Your task to perform on an android device: Go to ESPN.com Image 0: 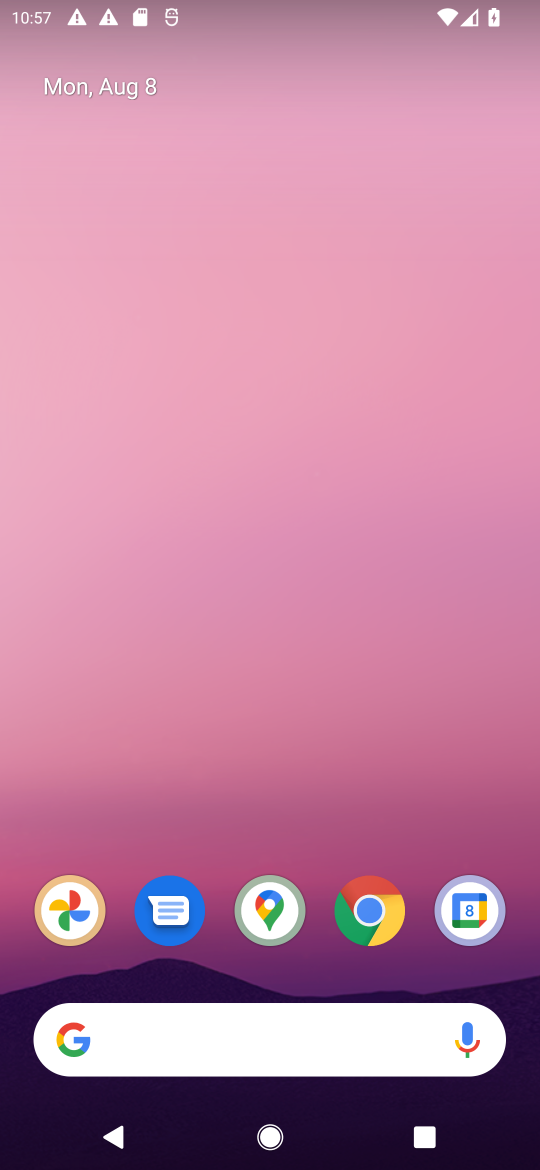
Step 0: click (369, 936)
Your task to perform on an android device: Go to ESPN.com Image 1: 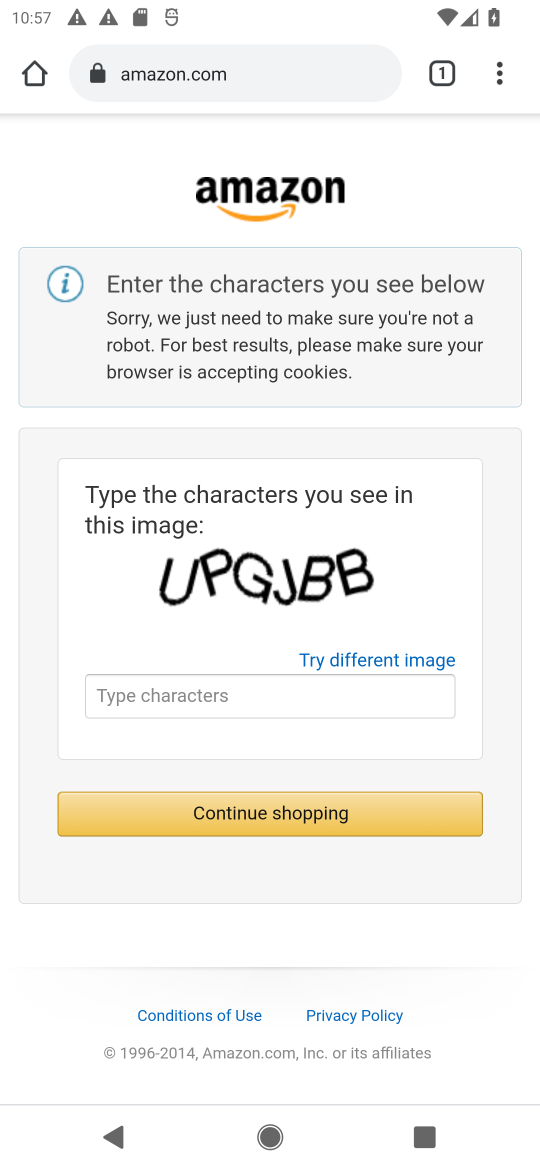
Step 1: click (439, 99)
Your task to perform on an android device: Go to ESPN.com Image 2: 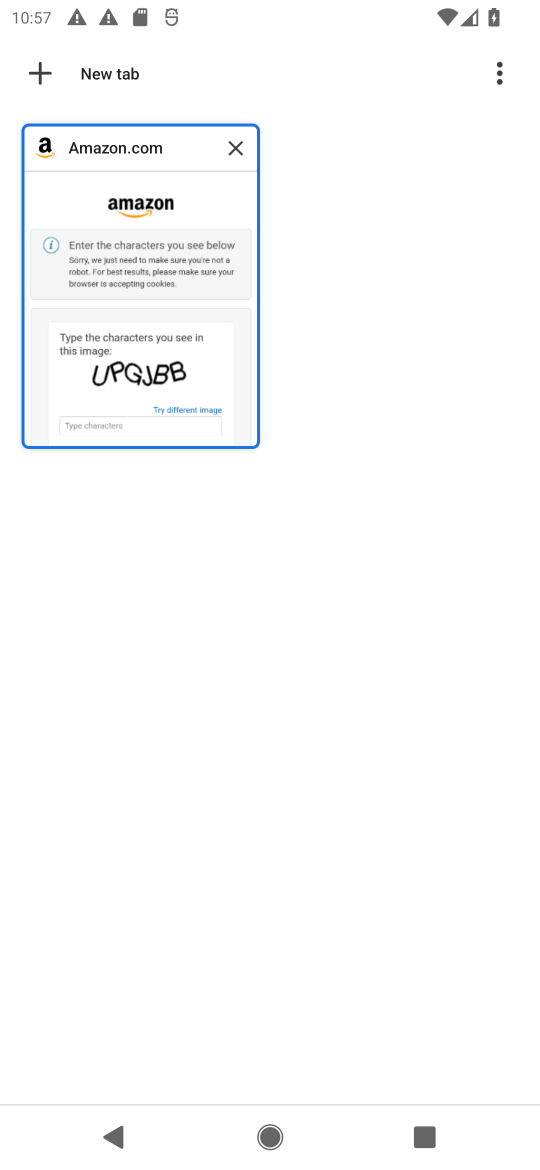
Step 2: click (31, 63)
Your task to perform on an android device: Go to ESPN.com Image 3: 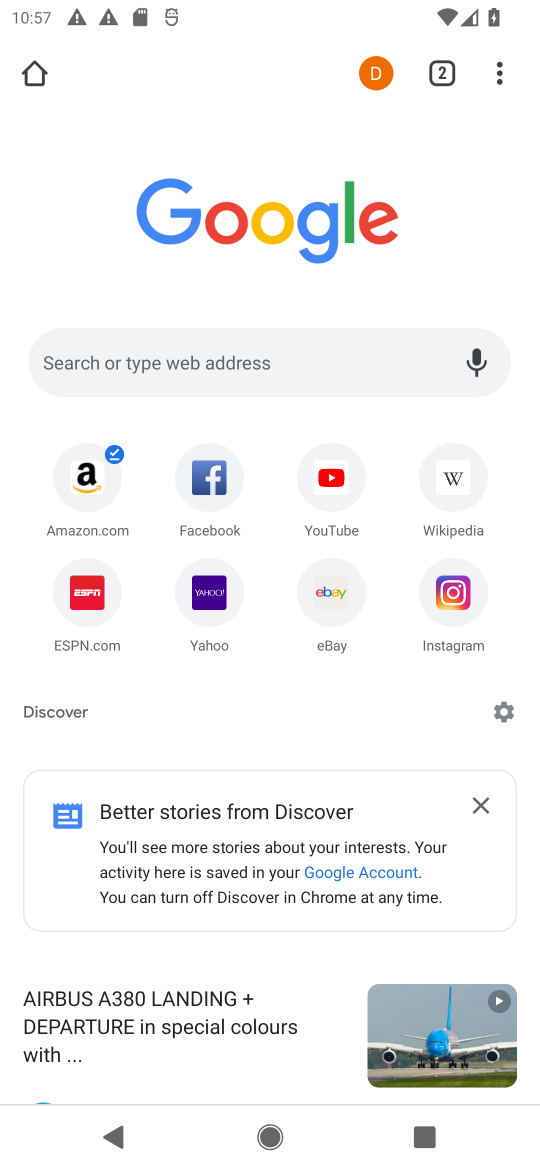
Step 3: click (77, 580)
Your task to perform on an android device: Go to ESPN.com Image 4: 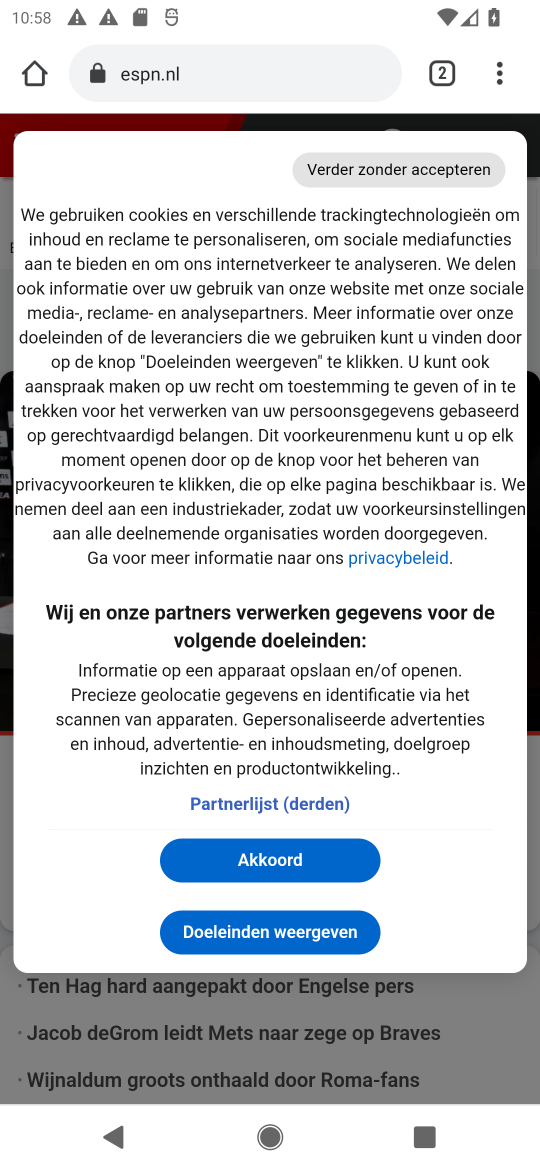
Step 4: task complete